Your task to perform on an android device: Open my contact list Image 0: 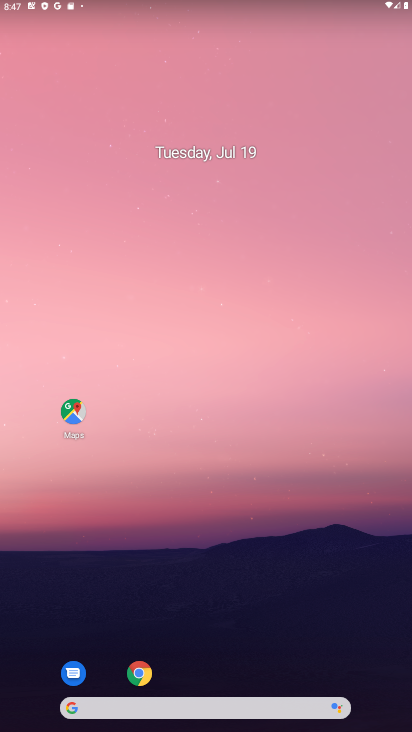
Step 0: drag from (241, 665) to (210, 123)
Your task to perform on an android device: Open my contact list Image 1: 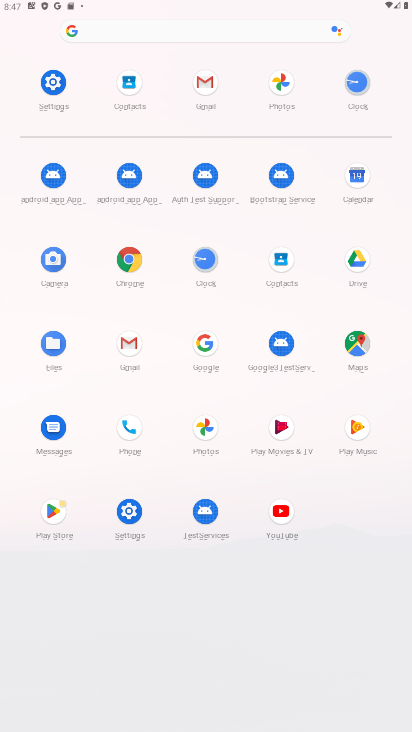
Step 1: click (149, 88)
Your task to perform on an android device: Open my contact list Image 2: 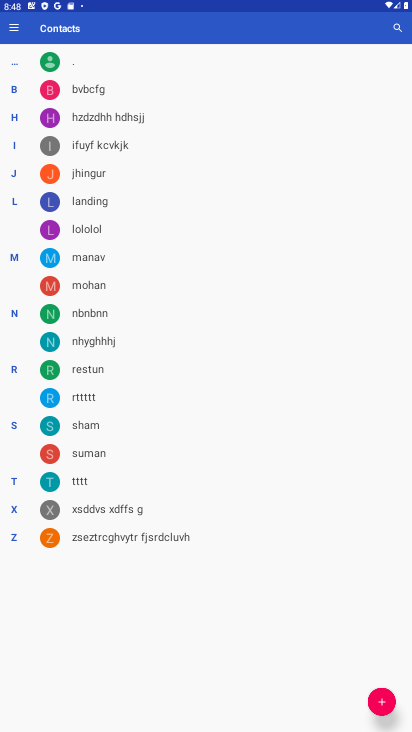
Step 2: task complete